Your task to perform on an android device: Open Google Chrome and open the bookmarks view Image 0: 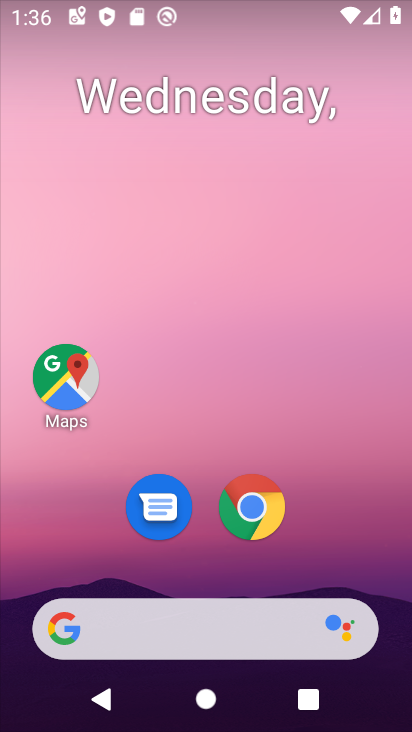
Step 0: drag from (393, 543) to (344, 213)
Your task to perform on an android device: Open Google Chrome and open the bookmarks view Image 1: 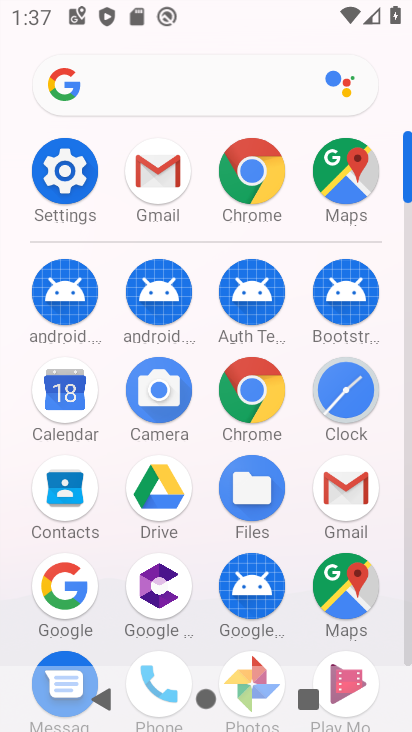
Step 1: click (242, 418)
Your task to perform on an android device: Open Google Chrome and open the bookmarks view Image 2: 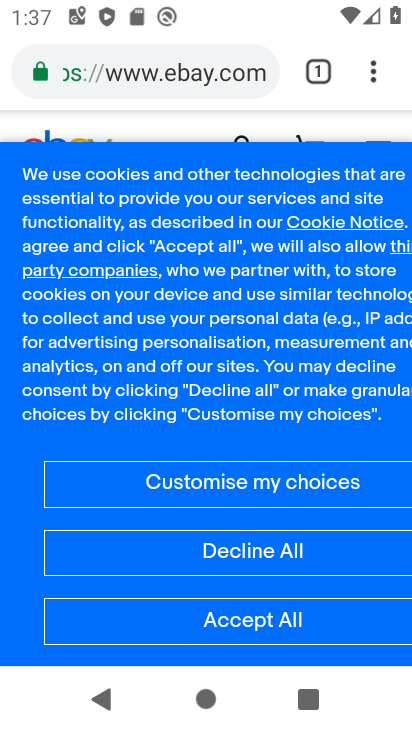
Step 2: click (384, 64)
Your task to perform on an android device: Open Google Chrome and open the bookmarks view Image 3: 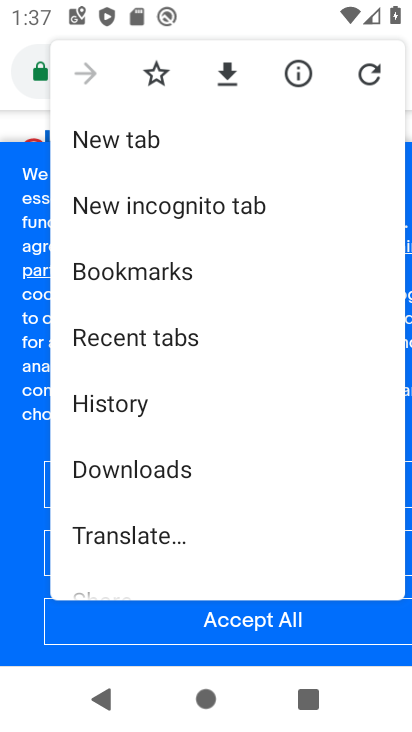
Step 3: click (149, 281)
Your task to perform on an android device: Open Google Chrome and open the bookmarks view Image 4: 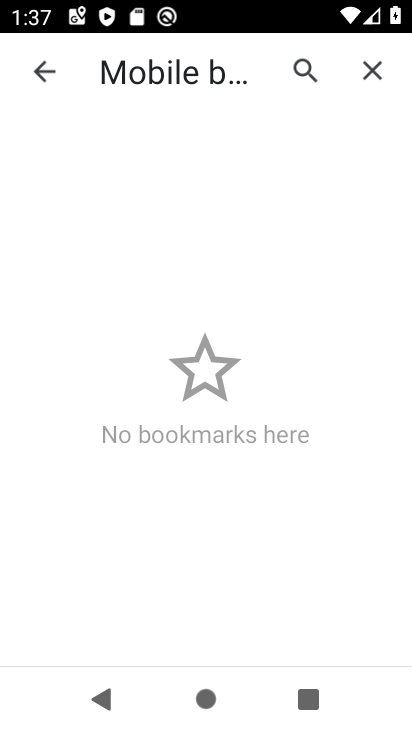
Step 4: task complete